Your task to perform on an android device: Go to accessibility settings Image 0: 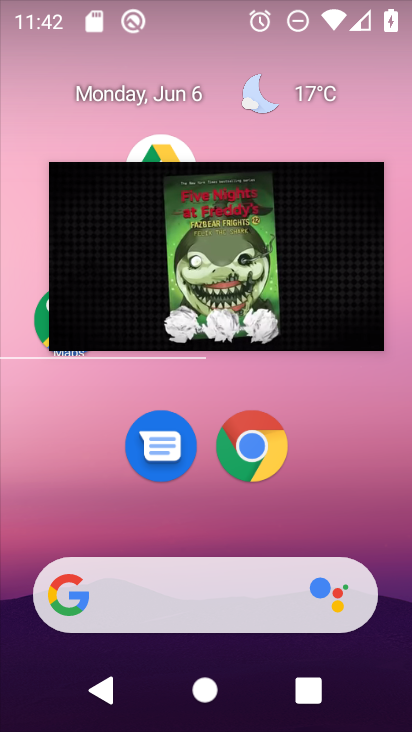
Step 0: drag from (161, 190) to (117, 714)
Your task to perform on an android device: Go to accessibility settings Image 1: 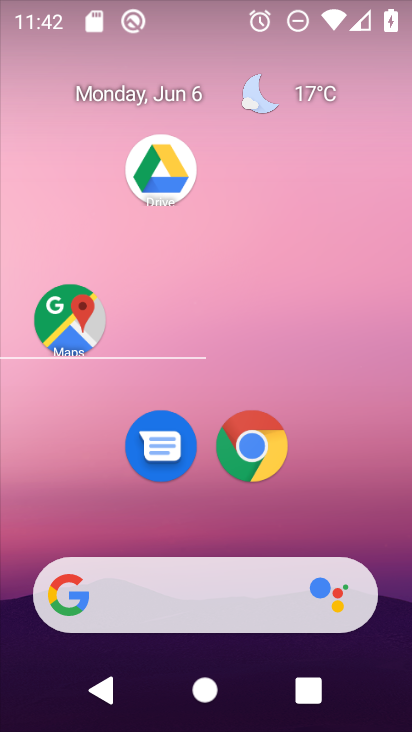
Step 1: drag from (200, 534) to (130, 78)
Your task to perform on an android device: Go to accessibility settings Image 2: 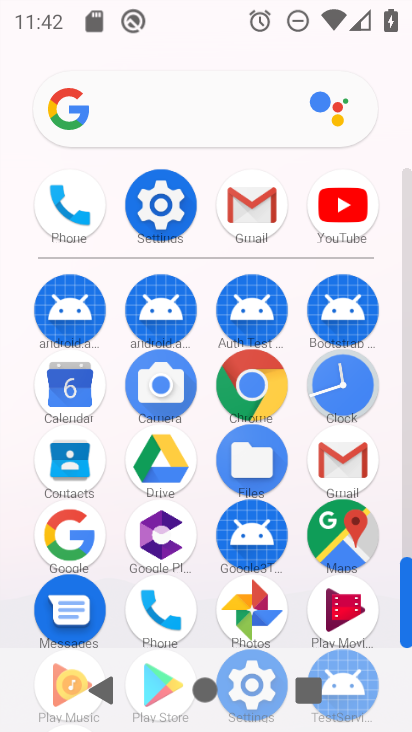
Step 2: click (172, 192)
Your task to perform on an android device: Go to accessibility settings Image 3: 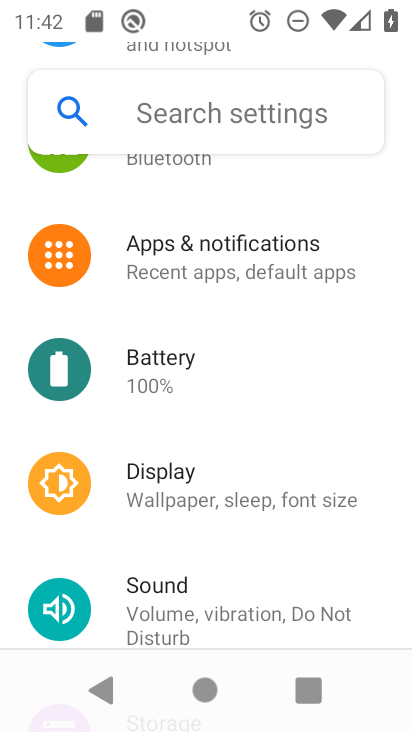
Step 3: drag from (99, 587) to (119, 8)
Your task to perform on an android device: Go to accessibility settings Image 4: 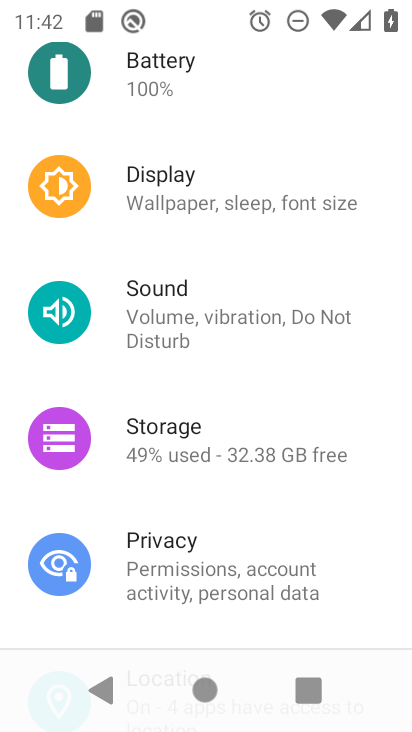
Step 4: drag from (183, 539) to (127, 98)
Your task to perform on an android device: Go to accessibility settings Image 5: 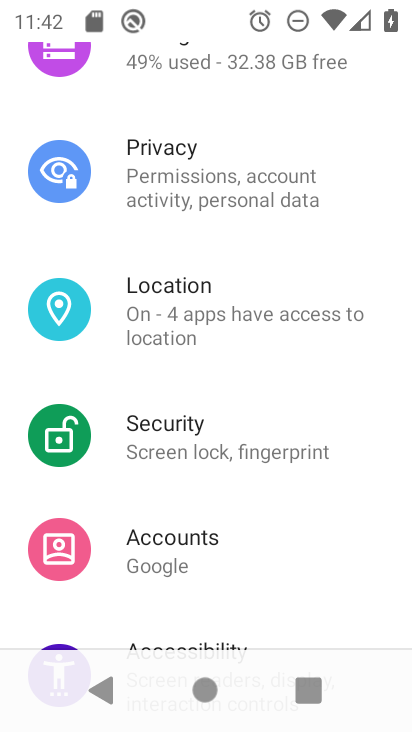
Step 5: drag from (120, 562) to (235, 5)
Your task to perform on an android device: Go to accessibility settings Image 6: 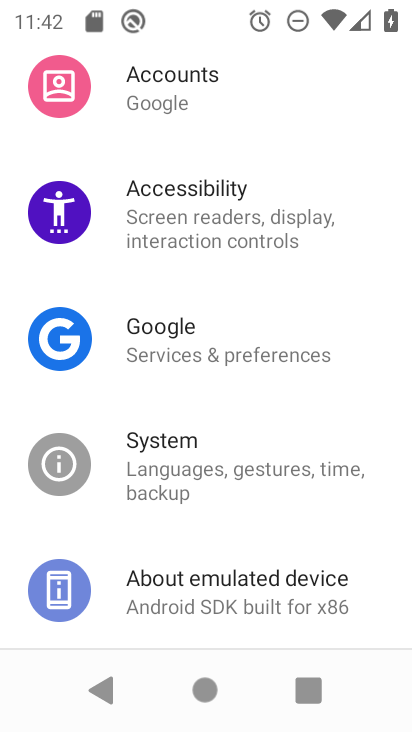
Step 6: click (212, 232)
Your task to perform on an android device: Go to accessibility settings Image 7: 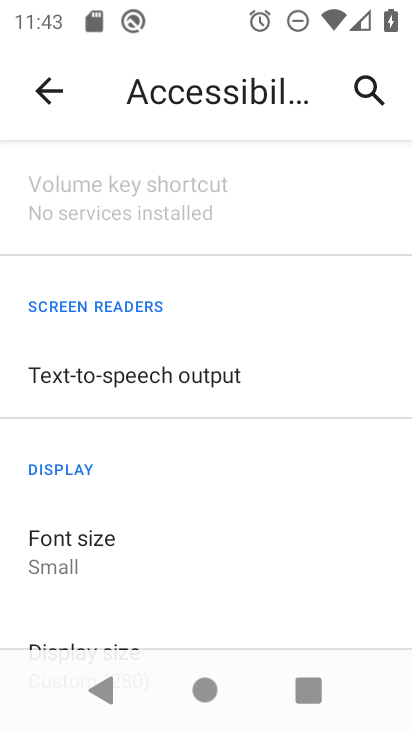
Step 7: task complete